Your task to perform on an android device: toggle data saver in the chrome app Image 0: 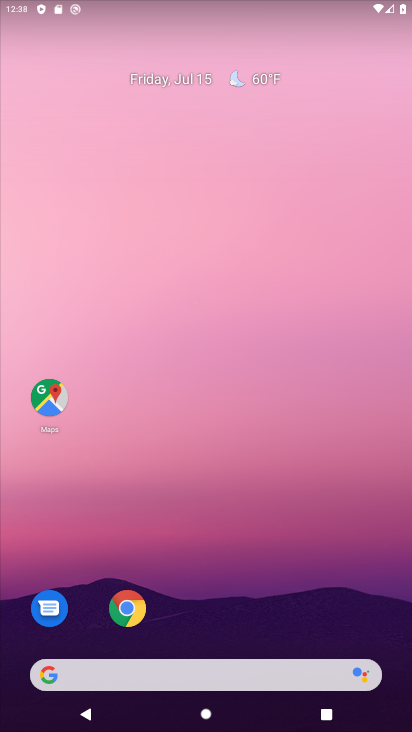
Step 0: press home button
Your task to perform on an android device: toggle data saver in the chrome app Image 1: 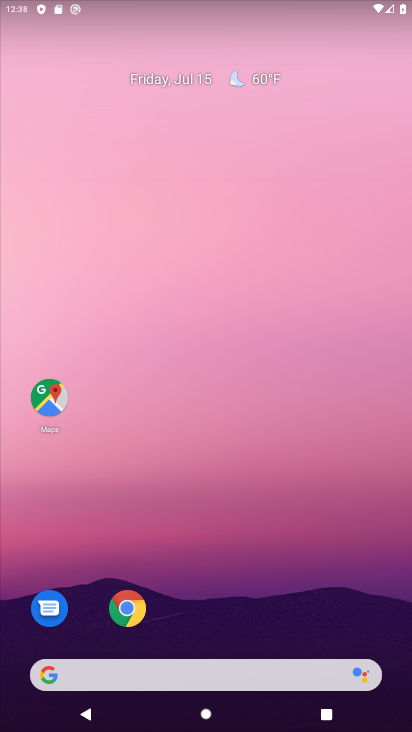
Step 1: drag from (233, 633) to (272, 27)
Your task to perform on an android device: toggle data saver in the chrome app Image 2: 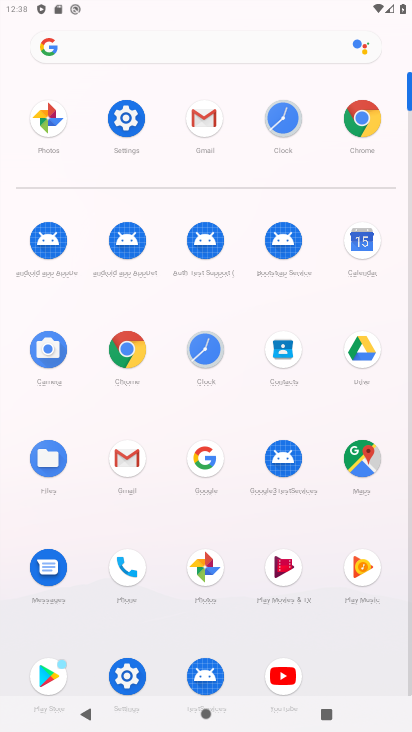
Step 2: click (134, 351)
Your task to perform on an android device: toggle data saver in the chrome app Image 3: 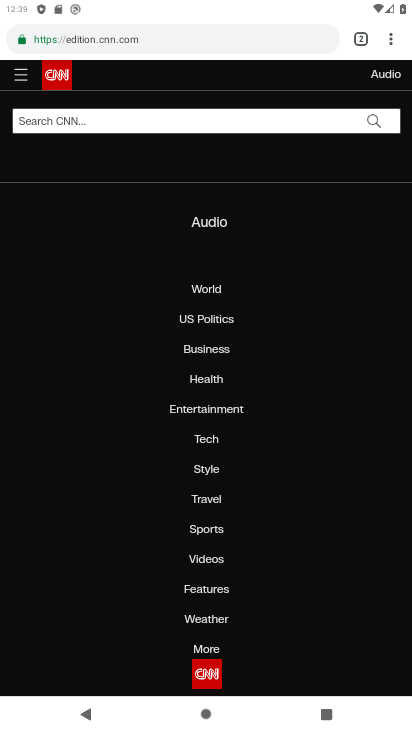
Step 3: drag from (391, 39) to (251, 465)
Your task to perform on an android device: toggle data saver in the chrome app Image 4: 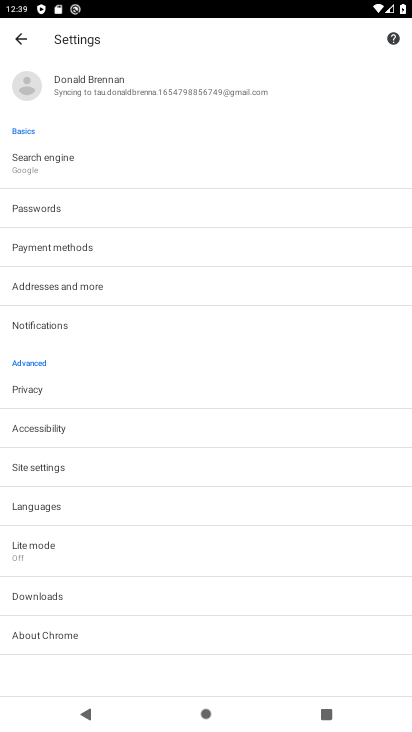
Step 4: click (51, 551)
Your task to perform on an android device: toggle data saver in the chrome app Image 5: 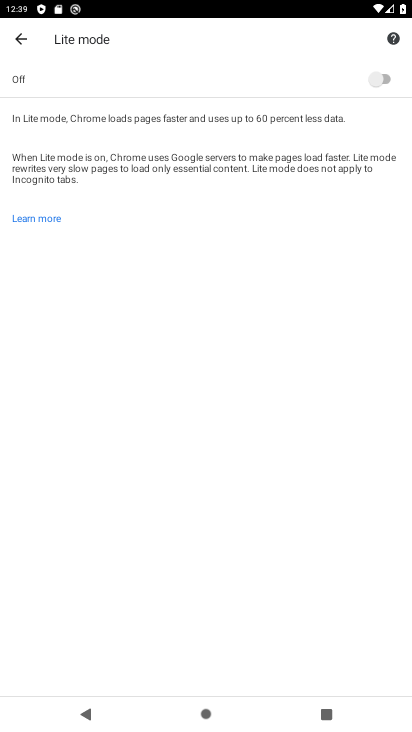
Step 5: click (330, 89)
Your task to perform on an android device: toggle data saver in the chrome app Image 6: 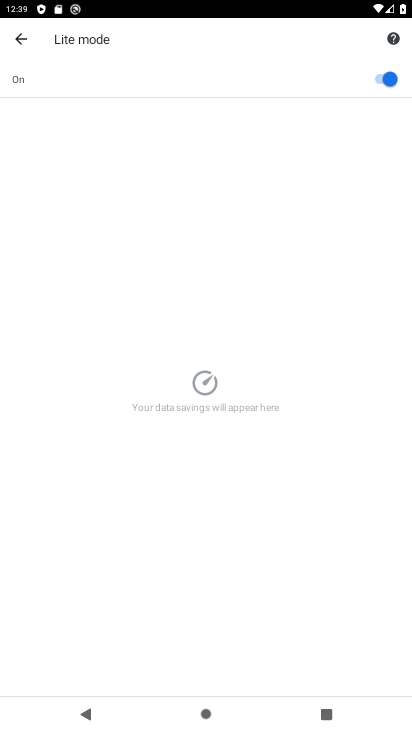
Step 6: task complete